Your task to perform on an android device: When is my next appointment? Image 0: 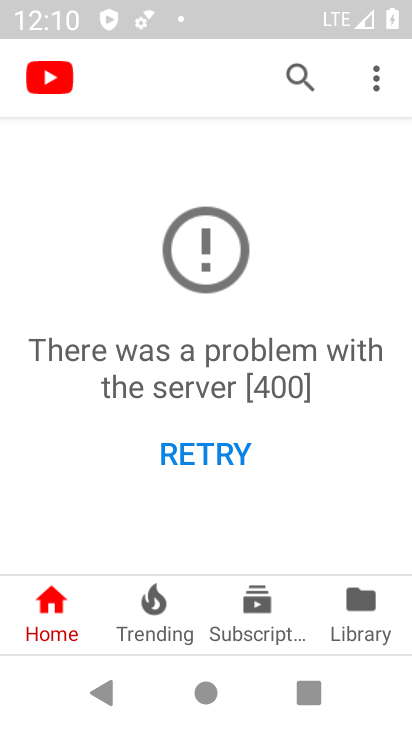
Step 0: press home button
Your task to perform on an android device: When is my next appointment? Image 1: 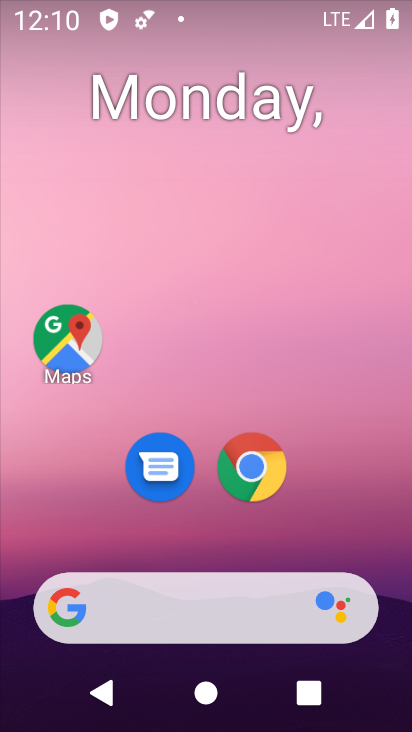
Step 1: drag from (370, 528) to (306, 47)
Your task to perform on an android device: When is my next appointment? Image 2: 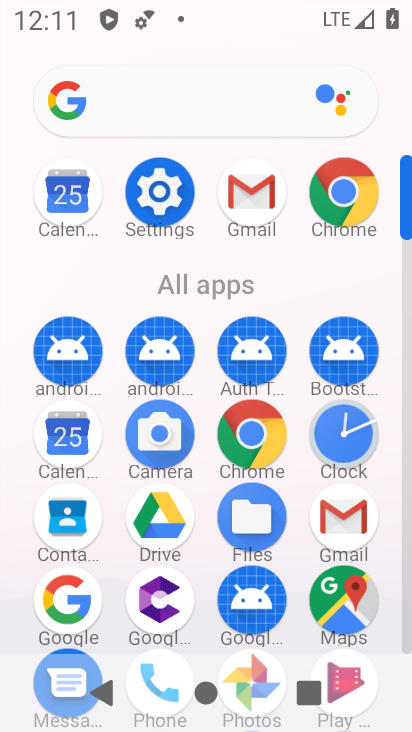
Step 2: click (405, 635)
Your task to perform on an android device: When is my next appointment? Image 3: 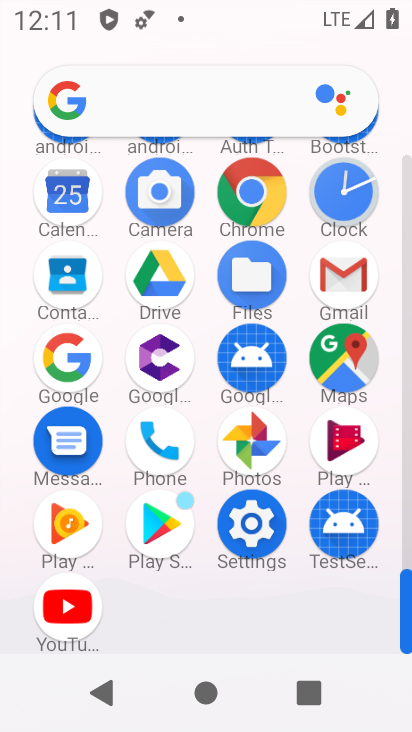
Step 3: click (404, 507)
Your task to perform on an android device: When is my next appointment? Image 4: 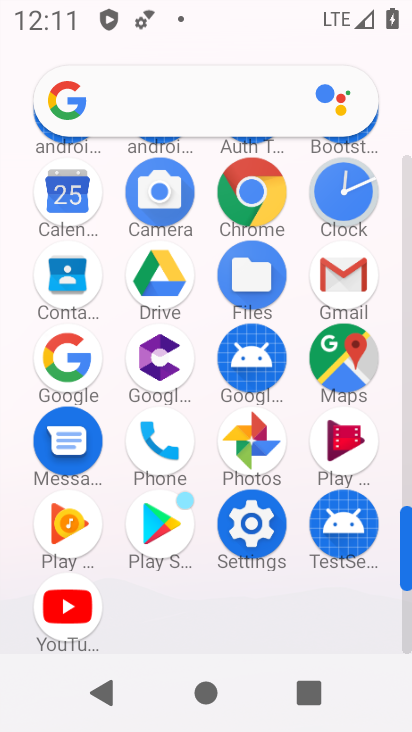
Step 4: click (407, 483)
Your task to perform on an android device: When is my next appointment? Image 5: 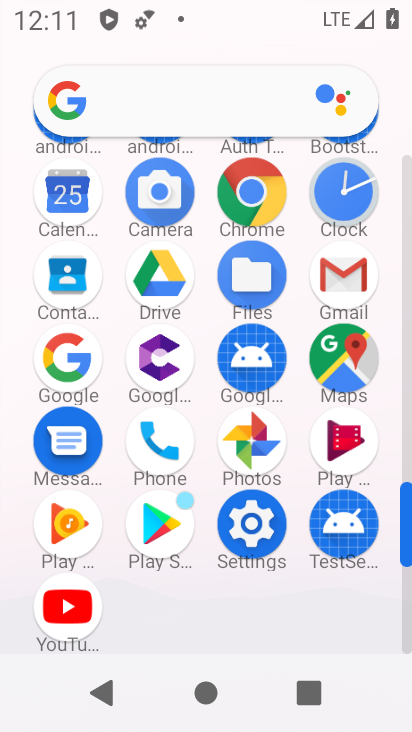
Step 5: click (63, 192)
Your task to perform on an android device: When is my next appointment? Image 6: 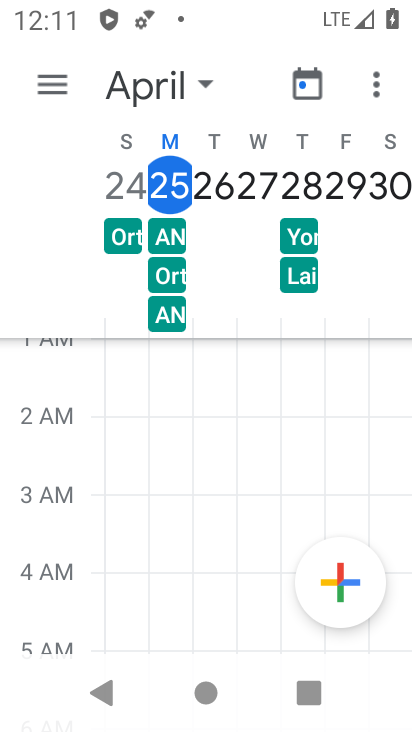
Step 6: click (48, 82)
Your task to perform on an android device: When is my next appointment? Image 7: 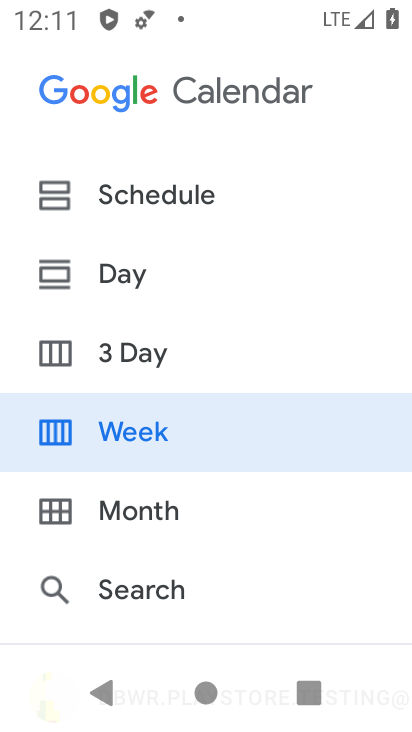
Step 7: click (135, 198)
Your task to perform on an android device: When is my next appointment? Image 8: 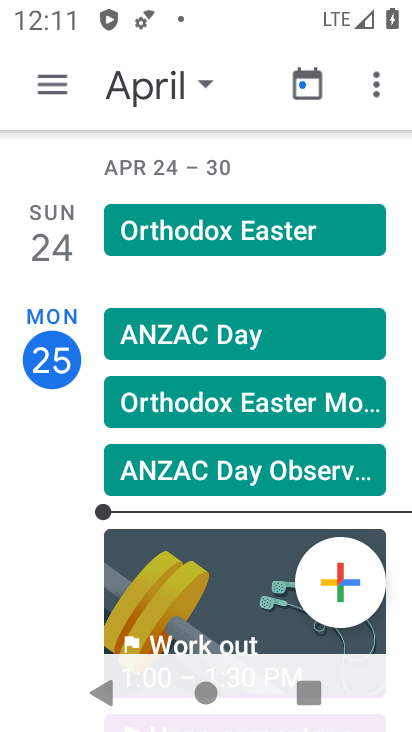
Step 8: task complete